Your task to perform on an android device: Toggle the flashlight Image 0: 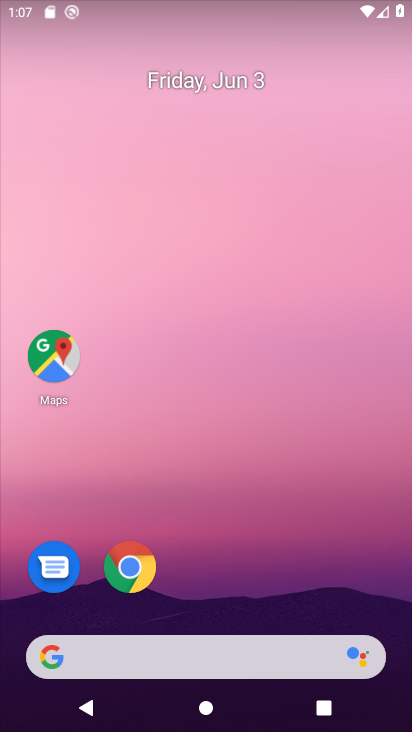
Step 0: drag from (287, 616) to (278, 167)
Your task to perform on an android device: Toggle the flashlight Image 1: 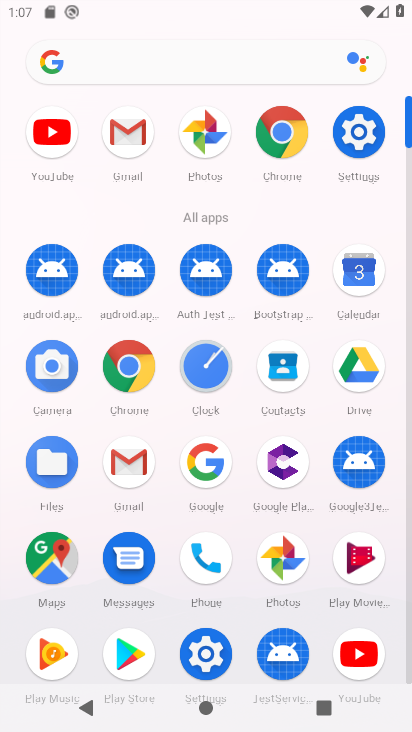
Step 1: click (353, 146)
Your task to perform on an android device: Toggle the flashlight Image 2: 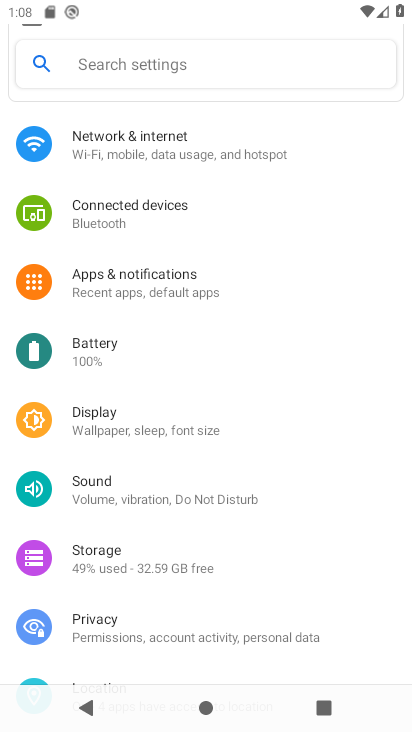
Step 2: task complete